Your task to perform on an android device: allow cookies in the chrome app Image 0: 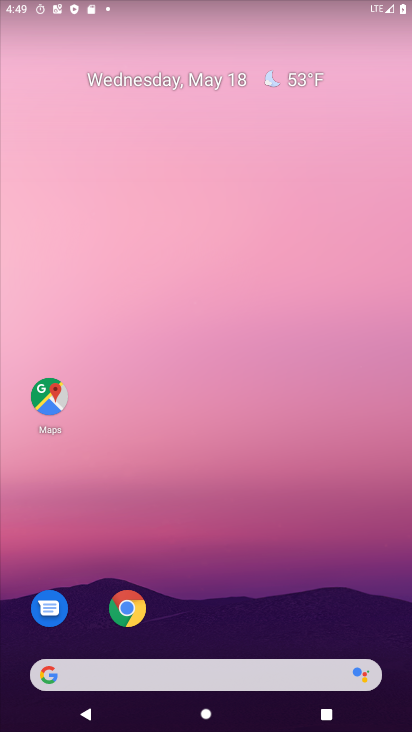
Step 0: drag from (311, 665) to (386, 33)
Your task to perform on an android device: allow cookies in the chrome app Image 1: 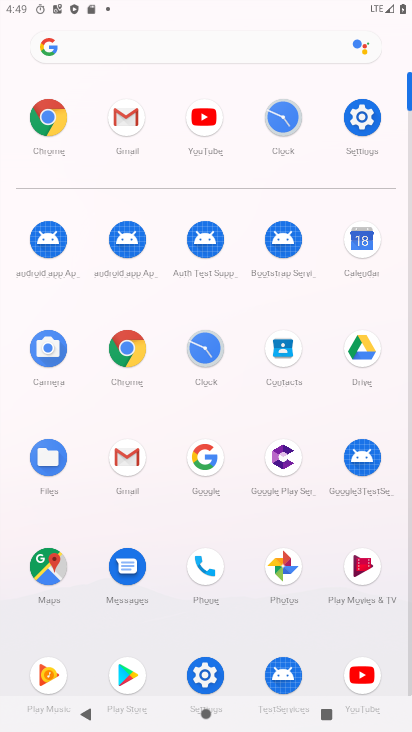
Step 1: click (132, 342)
Your task to perform on an android device: allow cookies in the chrome app Image 2: 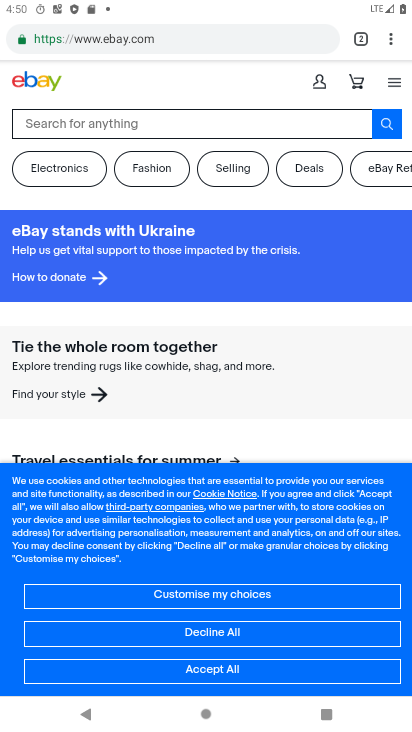
Step 2: click (388, 37)
Your task to perform on an android device: allow cookies in the chrome app Image 3: 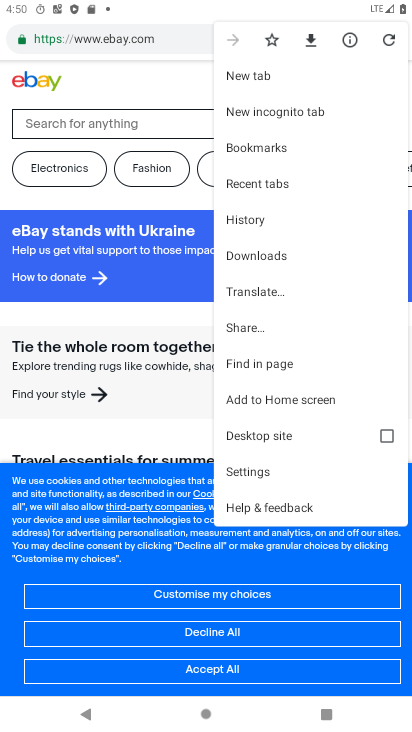
Step 3: click (267, 468)
Your task to perform on an android device: allow cookies in the chrome app Image 4: 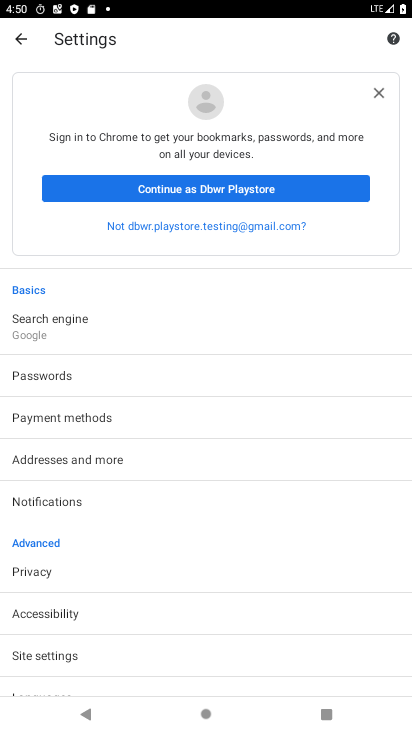
Step 4: drag from (118, 687) to (85, 337)
Your task to perform on an android device: allow cookies in the chrome app Image 5: 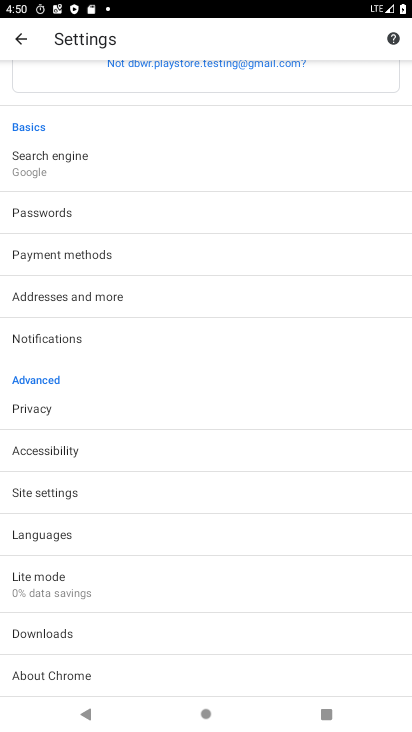
Step 5: click (45, 501)
Your task to perform on an android device: allow cookies in the chrome app Image 6: 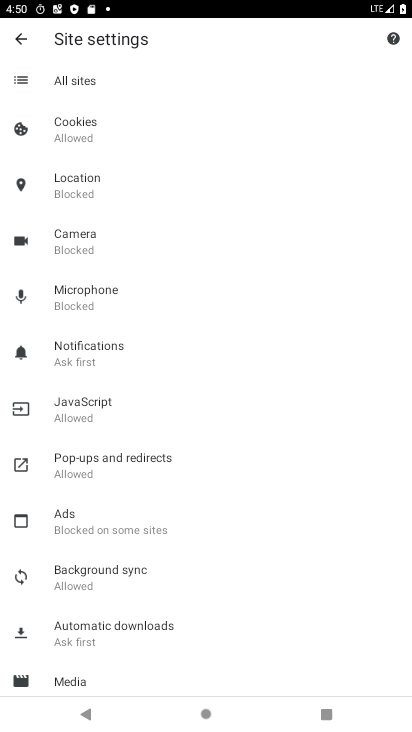
Step 6: click (108, 139)
Your task to perform on an android device: allow cookies in the chrome app Image 7: 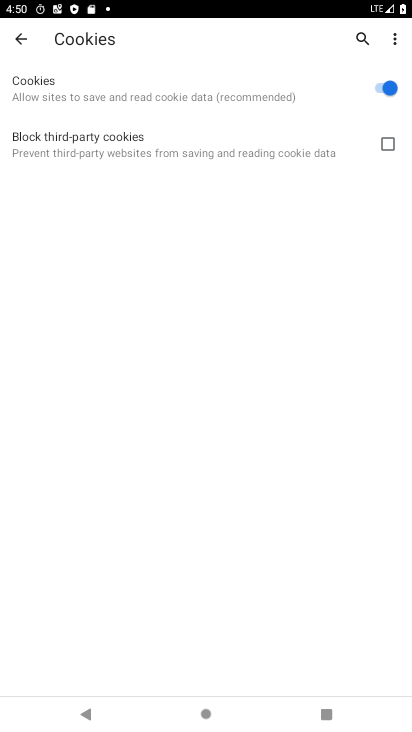
Step 7: task complete